Your task to perform on an android device: check storage Image 0: 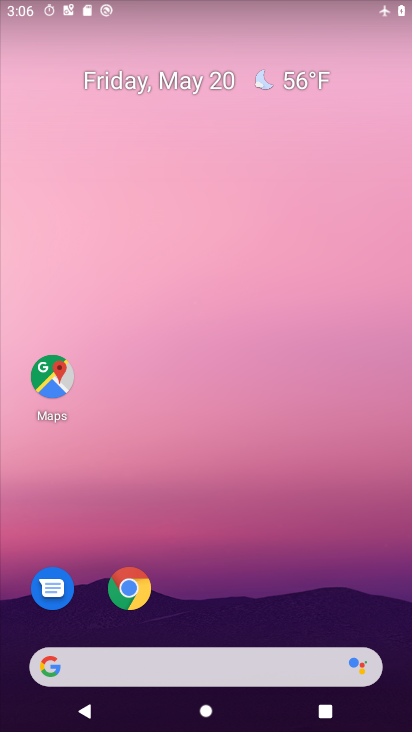
Step 0: click (183, 295)
Your task to perform on an android device: check storage Image 1: 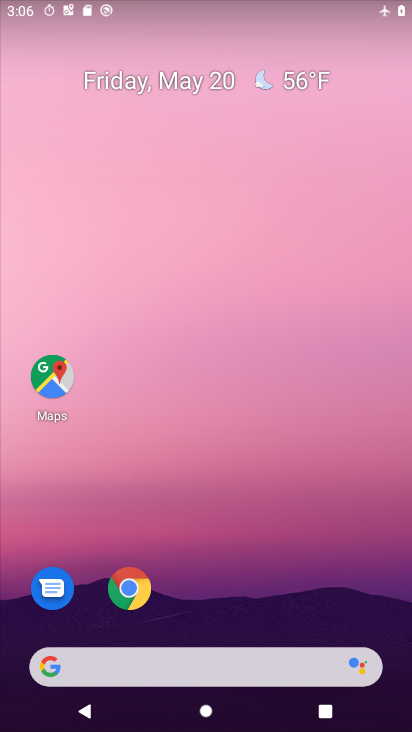
Step 1: drag from (35, 671) to (247, 189)
Your task to perform on an android device: check storage Image 2: 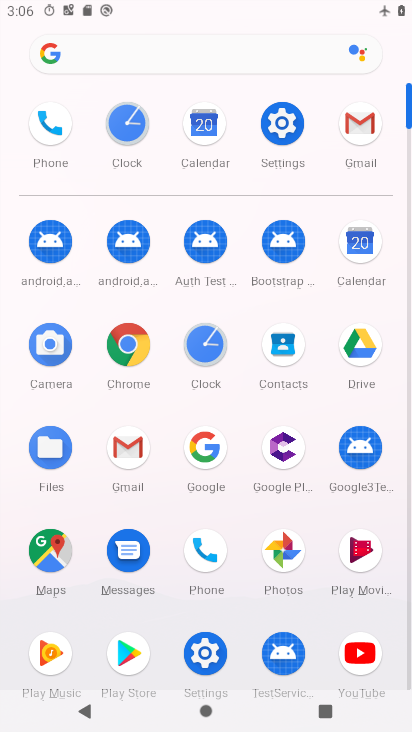
Step 2: click (265, 123)
Your task to perform on an android device: check storage Image 3: 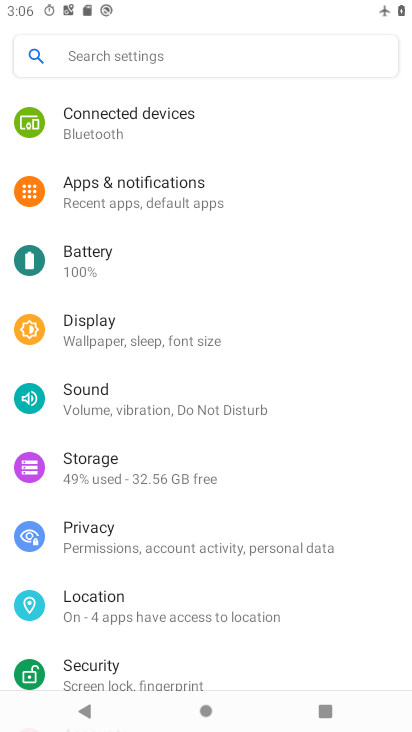
Step 3: click (149, 483)
Your task to perform on an android device: check storage Image 4: 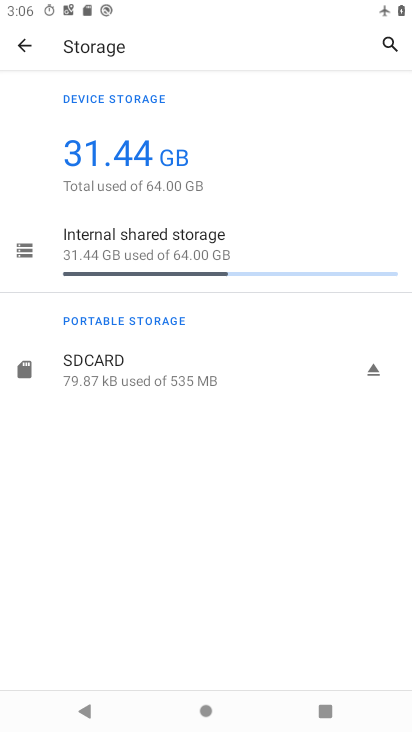
Step 4: task complete